Your task to perform on an android device: Open Android settings Image 0: 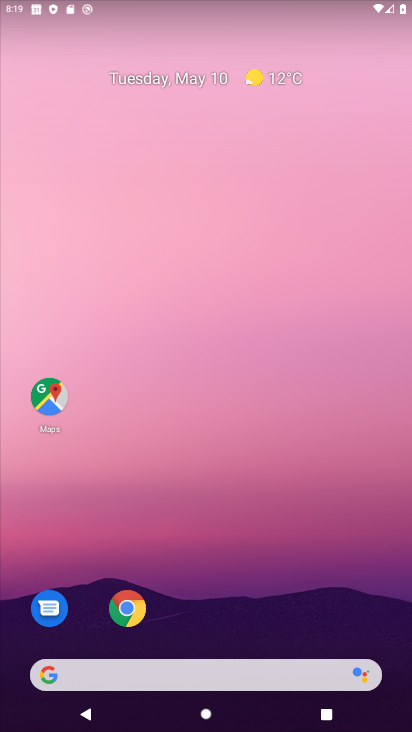
Step 0: drag from (219, 667) to (224, 80)
Your task to perform on an android device: Open Android settings Image 1: 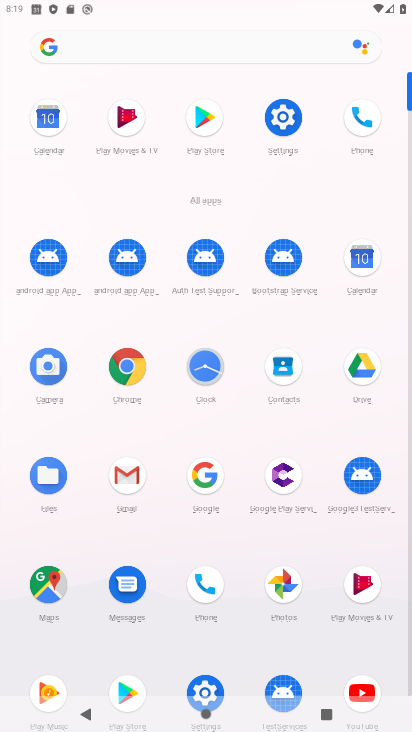
Step 1: click (281, 125)
Your task to perform on an android device: Open Android settings Image 2: 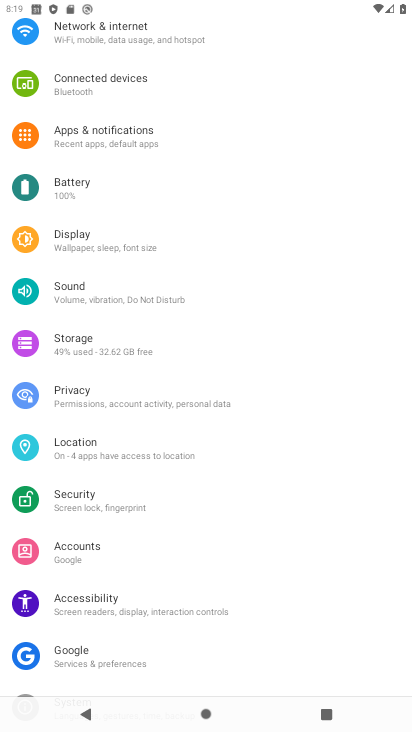
Step 2: drag from (142, 641) to (152, 165)
Your task to perform on an android device: Open Android settings Image 3: 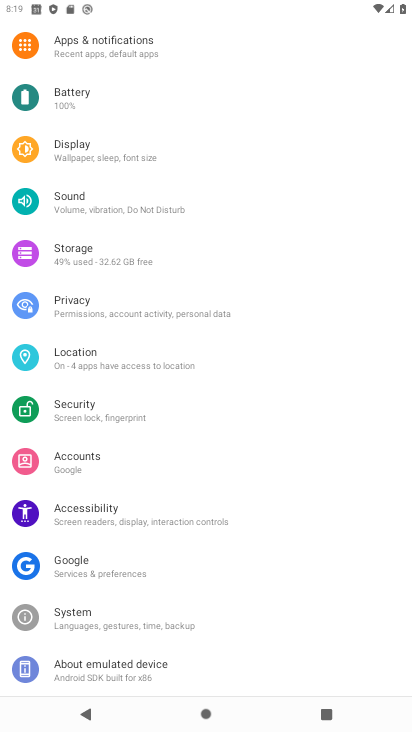
Step 3: click (106, 658)
Your task to perform on an android device: Open Android settings Image 4: 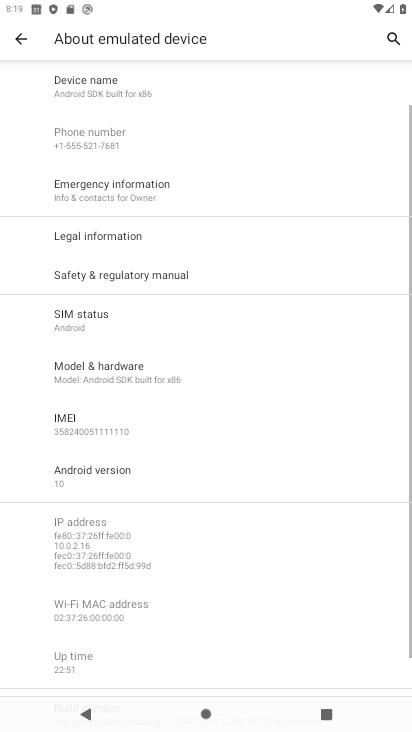
Step 4: task complete